Your task to perform on an android device: Open the map Image 0: 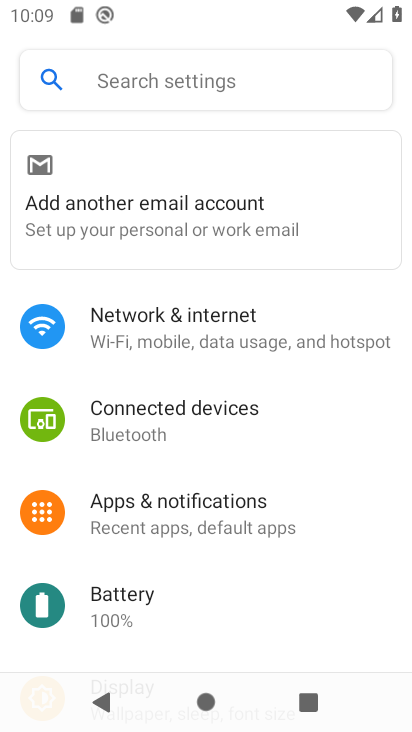
Step 0: press home button
Your task to perform on an android device: Open the map Image 1: 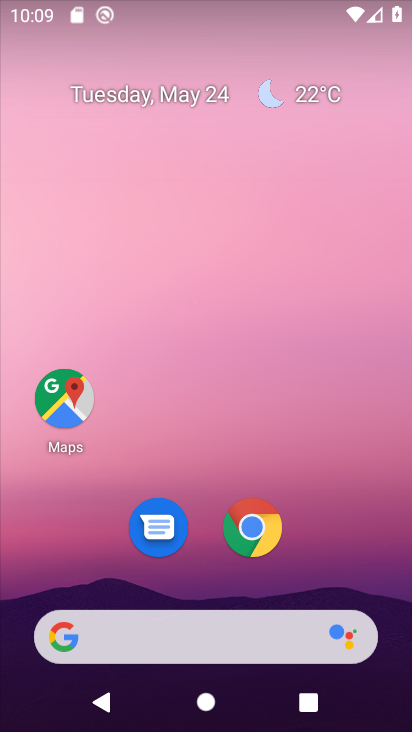
Step 1: click (70, 395)
Your task to perform on an android device: Open the map Image 2: 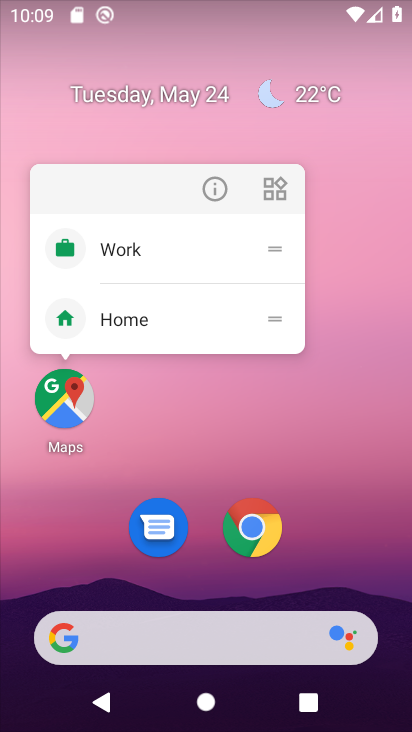
Step 2: click (70, 395)
Your task to perform on an android device: Open the map Image 3: 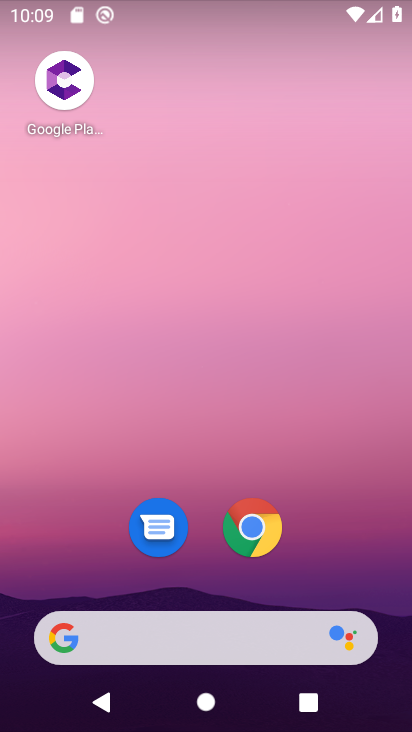
Step 3: drag from (192, 635) to (296, 193)
Your task to perform on an android device: Open the map Image 4: 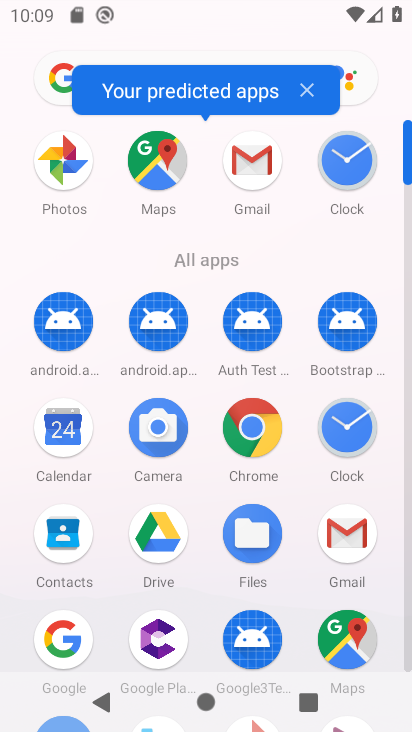
Step 4: click (159, 176)
Your task to perform on an android device: Open the map Image 5: 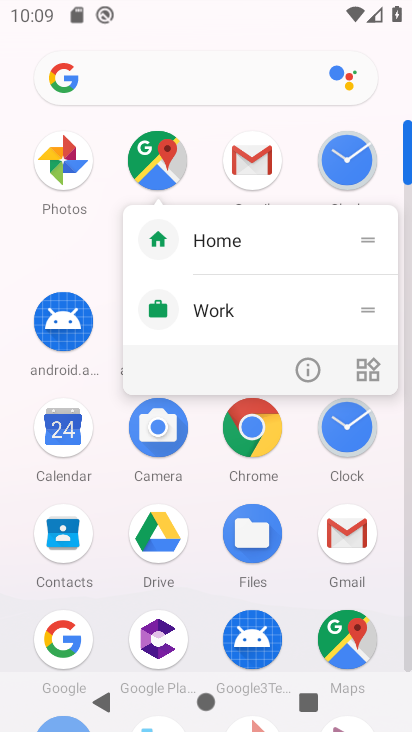
Step 5: drag from (159, 175) to (86, 390)
Your task to perform on an android device: Open the map Image 6: 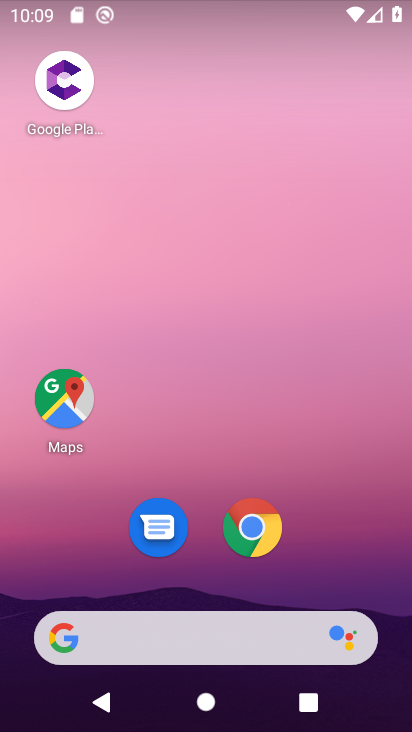
Step 6: click (57, 404)
Your task to perform on an android device: Open the map Image 7: 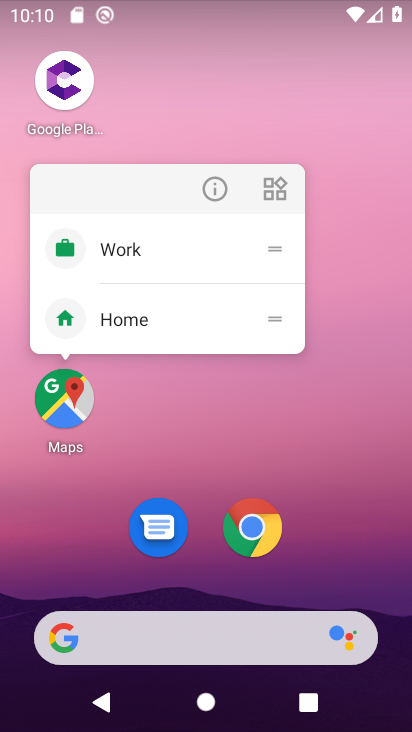
Step 7: click (57, 404)
Your task to perform on an android device: Open the map Image 8: 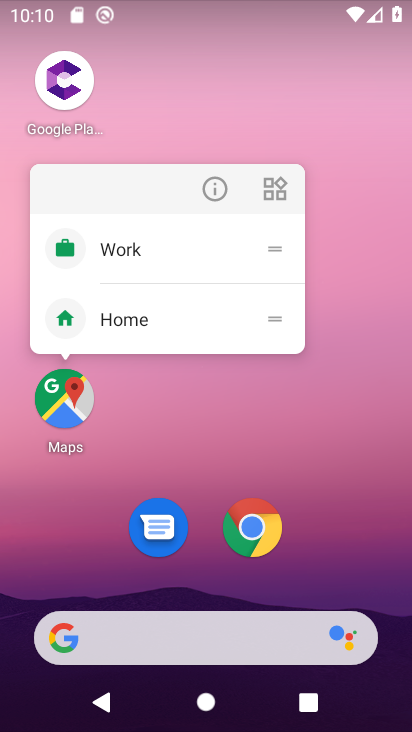
Step 8: click (56, 413)
Your task to perform on an android device: Open the map Image 9: 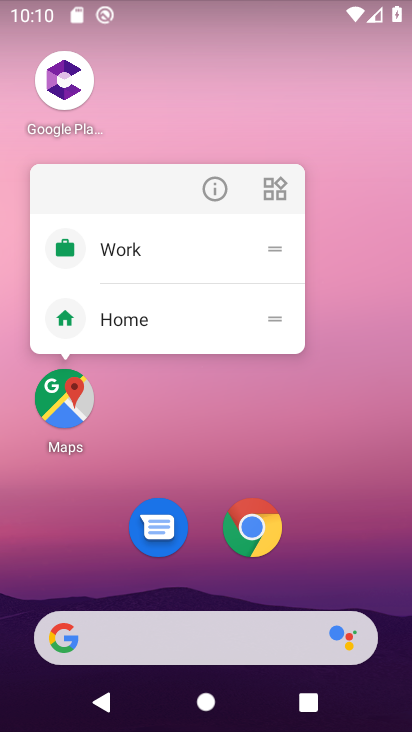
Step 9: click (60, 412)
Your task to perform on an android device: Open the map Image 10: 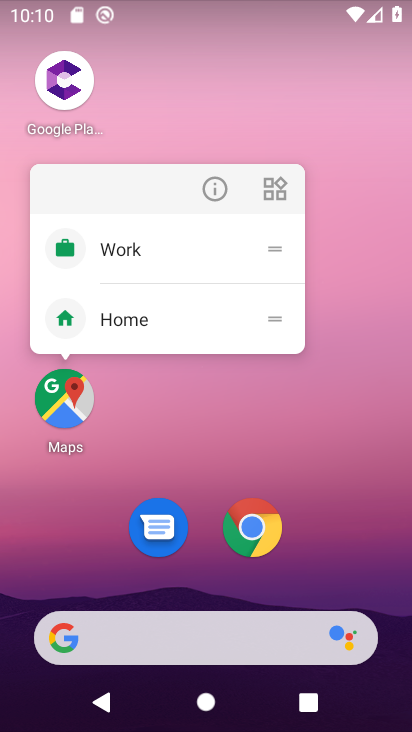
Step 10: click (61, 402)
Your task to perform on an android device: Open the map Image 11: 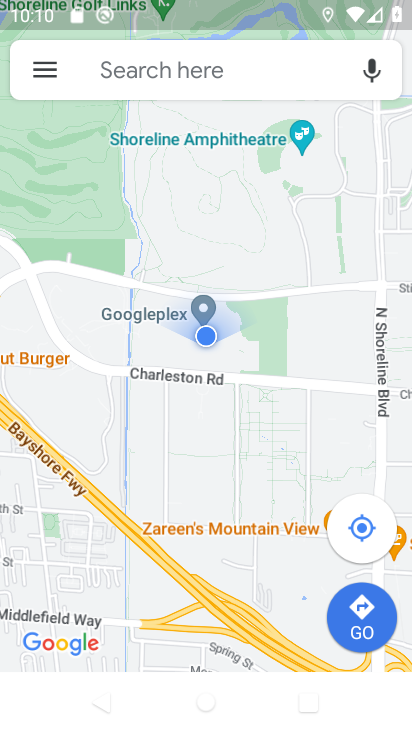
Step 11: task complete